Your task to perform on an android device: Find coffee shops on Maps Image 0: 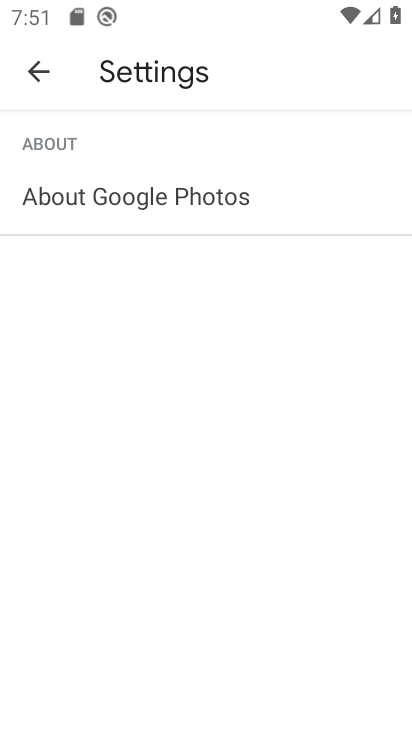
Step 0: press home button
Your task to perform on an android device: Find coffee shops on Maps Image 1: 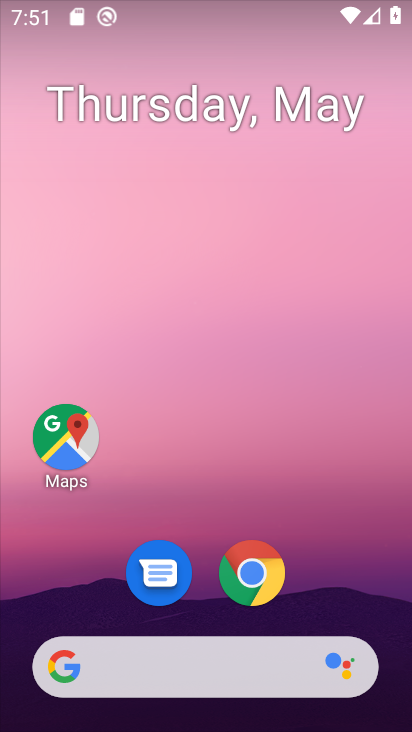
Step 1: click (56, 435)
Your task to perform on an android device: Find coffee shops on Maps Image 2: 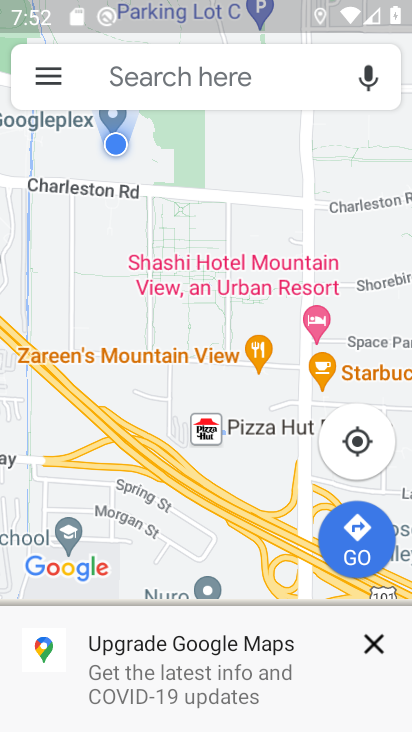
Step 2: click (181, 81)
Your task to perform on an android device: Find coffee shops on Maps Image 3: 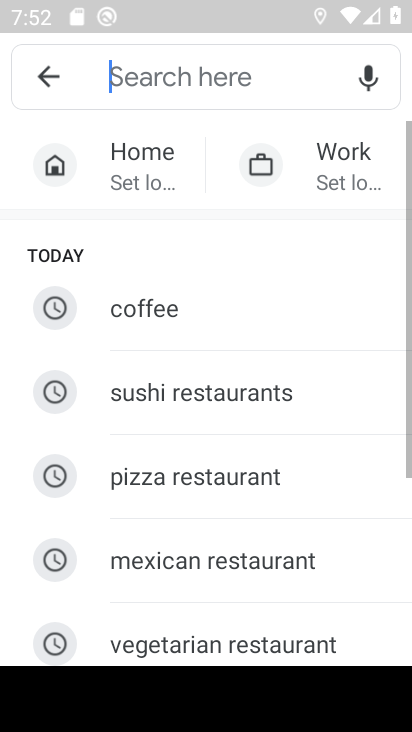
Step 3: click (110, 331)
Your task to perform on an android device: Find coffee shops on Maps Image 4: 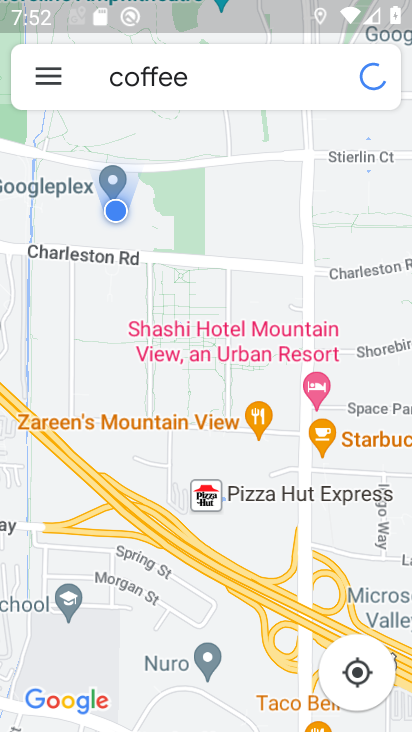
Step 4: task complete